Your task to perform on an android device: Go to privacy settings Image 0: 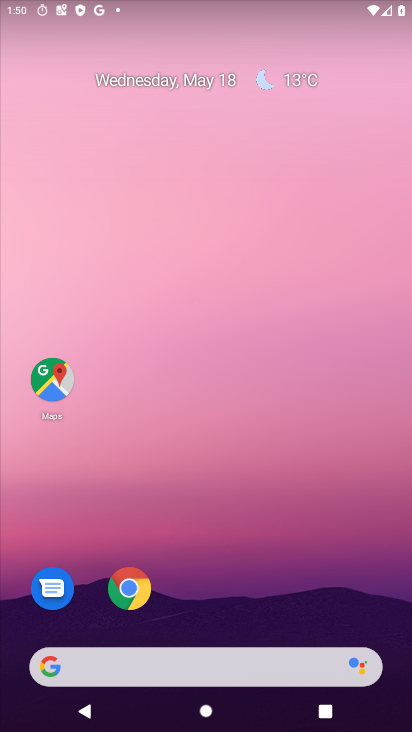
Step 0: click (221, 93)
Your task to perform on an android device: Go to privacy settings Image 1: 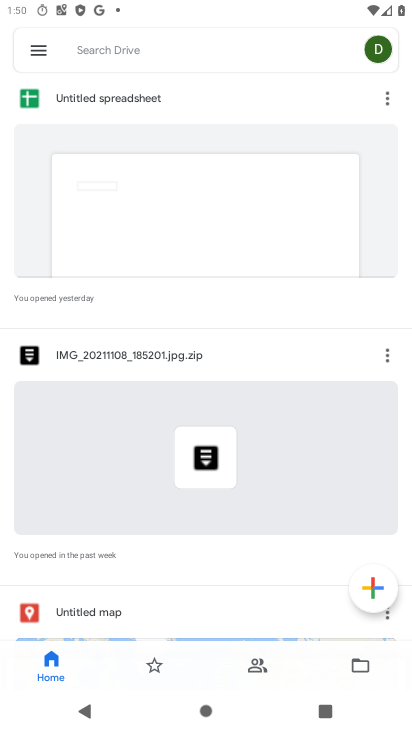
Step 1: press home button
Your task to perform on an android device: Go to privacy settings Image 2: 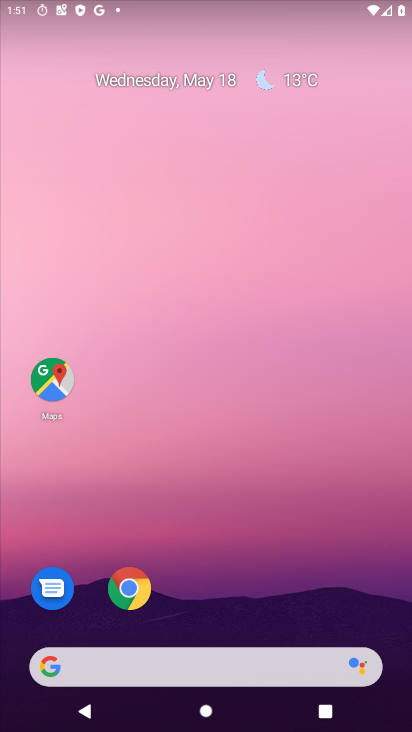
Step 2: drag from (173, 610) to (258, 191)
Your task to perform on an android device: Go to privacy settings Image 3: 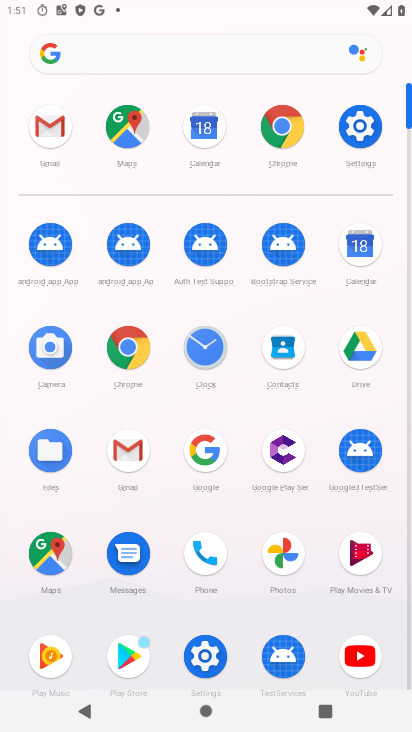
Step 3: click (358, 115)
Your task to perform on an android device: Go to privacy settings Image 4: 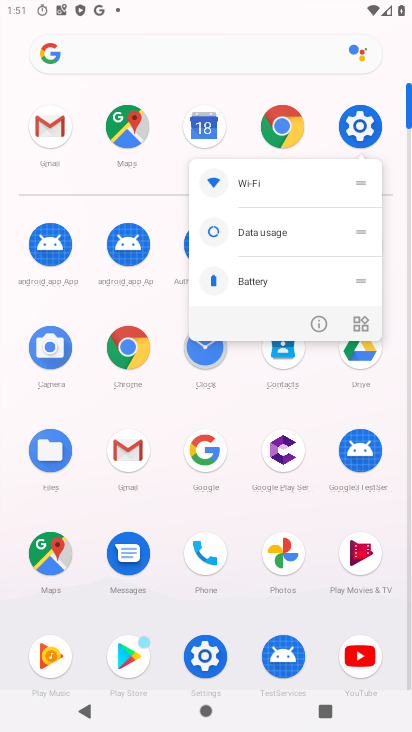
Step 4: click (319, 321)
Your task to perform on an android device: Go to privacy settings Image 5: 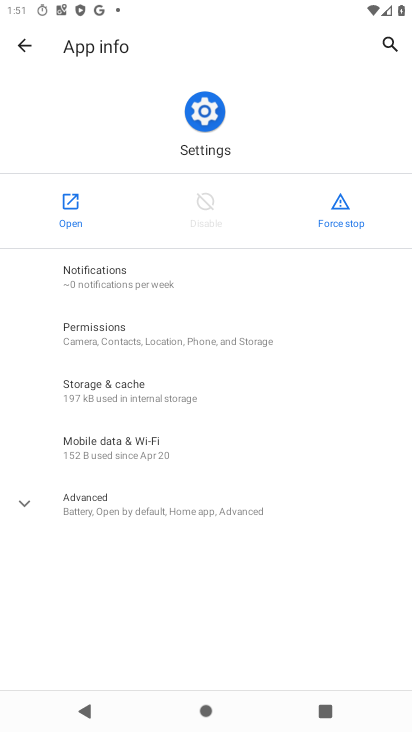
Step 5: click (58, 221)
Your task to perform on an android device: Go to privacy settings Image 6: 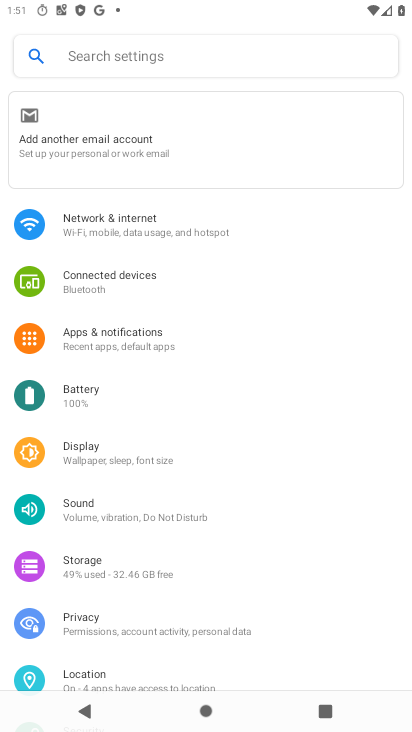
Step 6: click (109, 632)
Your task to perform on an android device: Go to privacy settings Image 7: 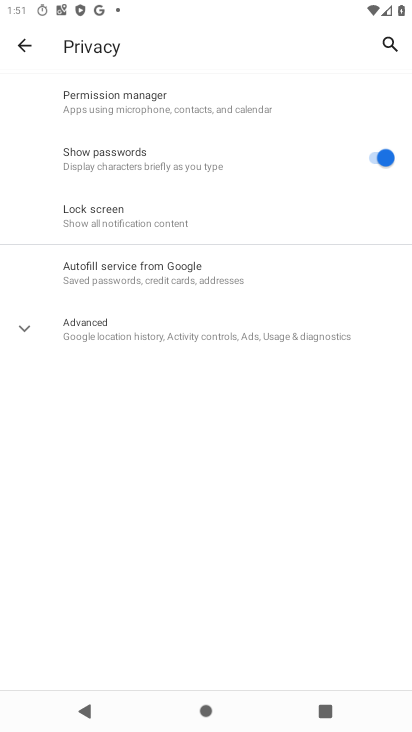
Step 7: task complete